Your task to perform on an android device: open wifi settings Image 0: 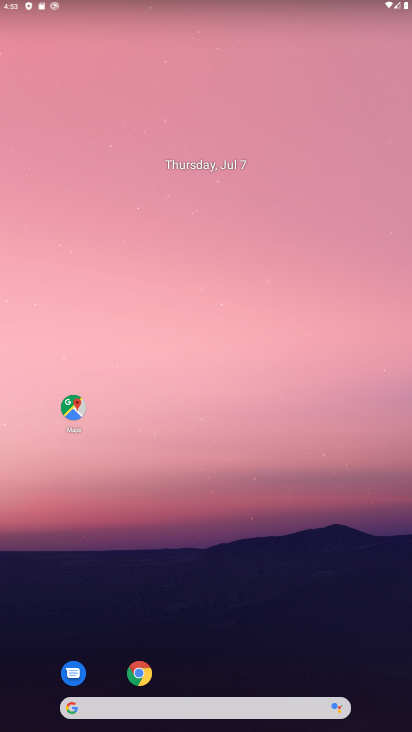
Step 0: drag from (90, 691) to (137, 10)
Your task to perform on an android device: open wifi settings Image 1: 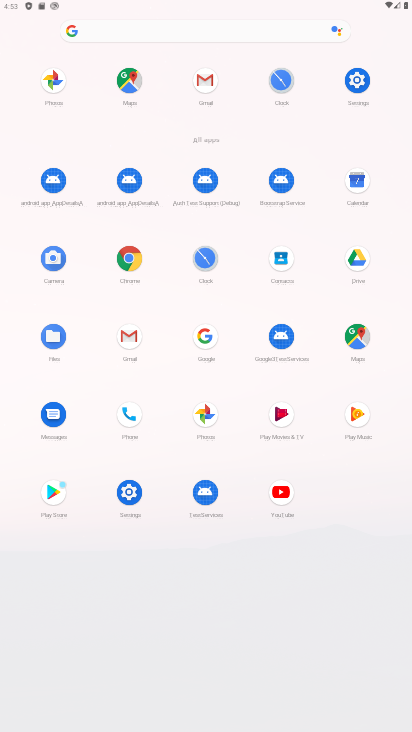
Step 1: click (352, 84)
Your task to perform on an android device: open wifi settings Image 2: 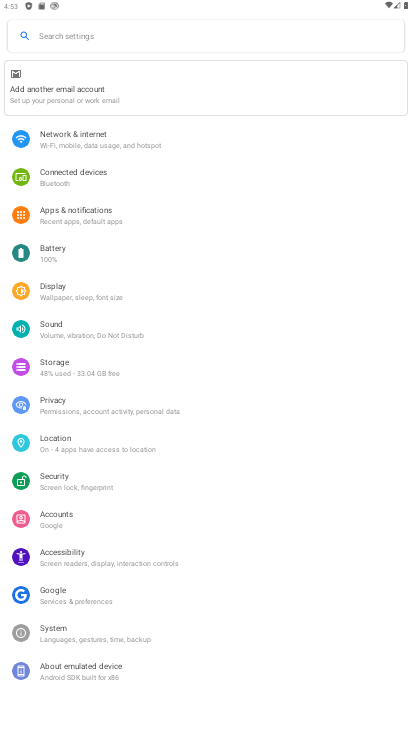
Step 2: click (78, 132)
Your task to perform on an android device: open wifi settings Image 3: 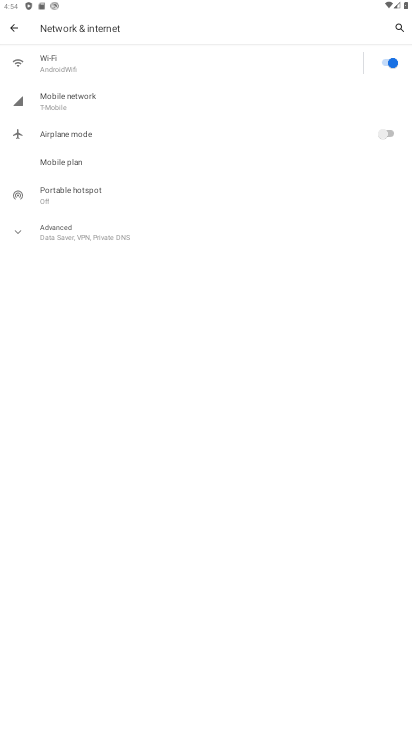
Step 3: click (88, 70)
Your task to perform on an android device: open wifi settings Image 4: 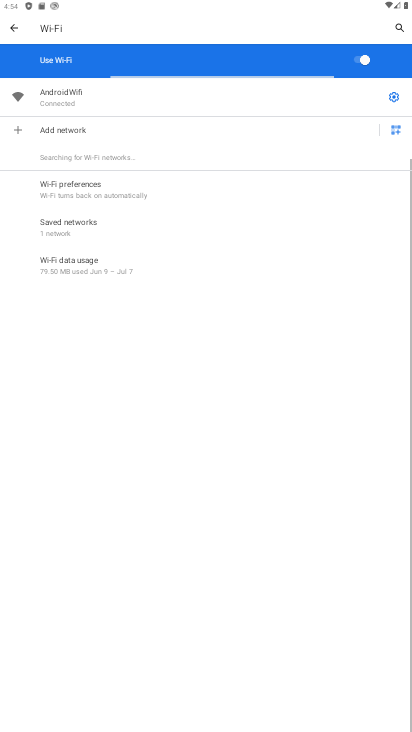
Step 4: task complete